Your task to perform on an android device: Go to Yahoo.com Image 0: 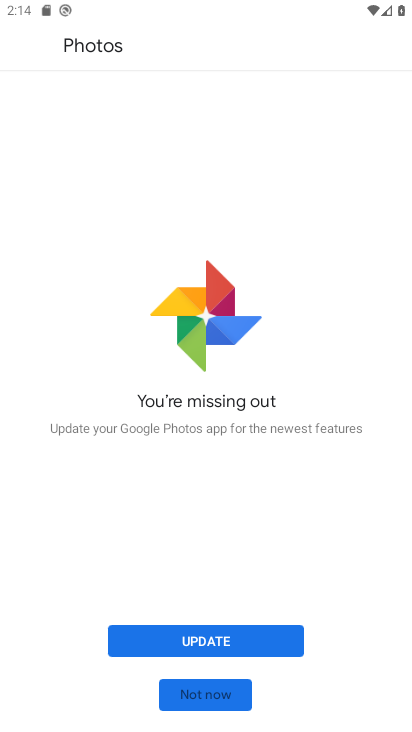
Step 0: press home button
Your task to perform on an android device: Go to Yahoo.com Image 1: 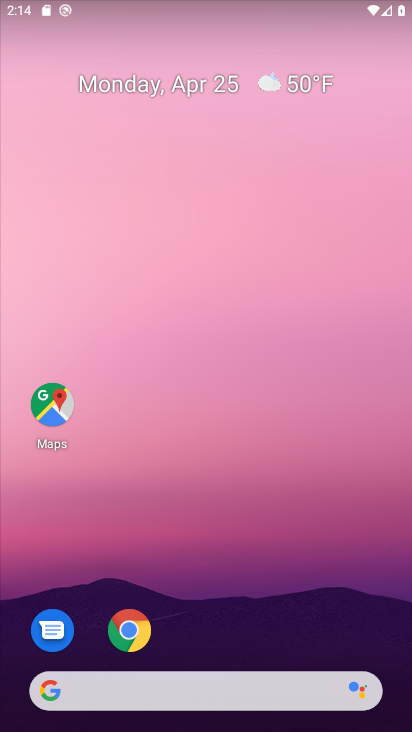
Step 1: click (125, 632)
Your task to perform on an android device: Go to Yahoo.com Image 2: 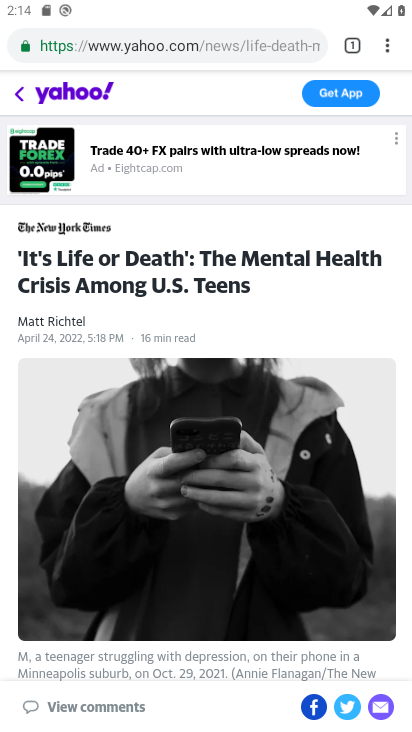
Step 2: task complete